Your task to perform on an android device: refresh tabs in the chrome app Image 0: 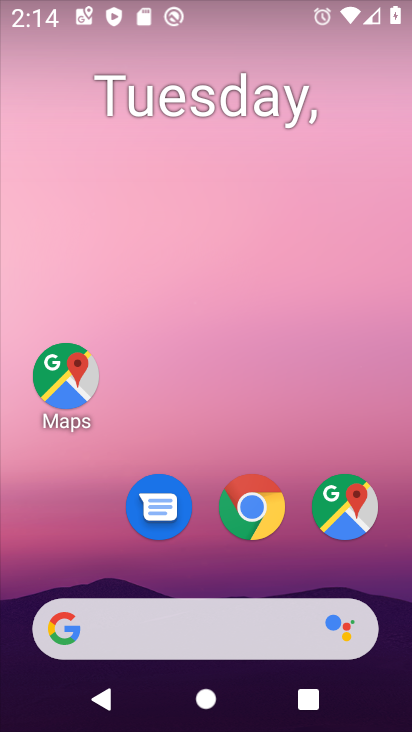
Step 0: click (242, 505)
Your task to perform on an android device: refresh tabs in the chrome app Image 1: 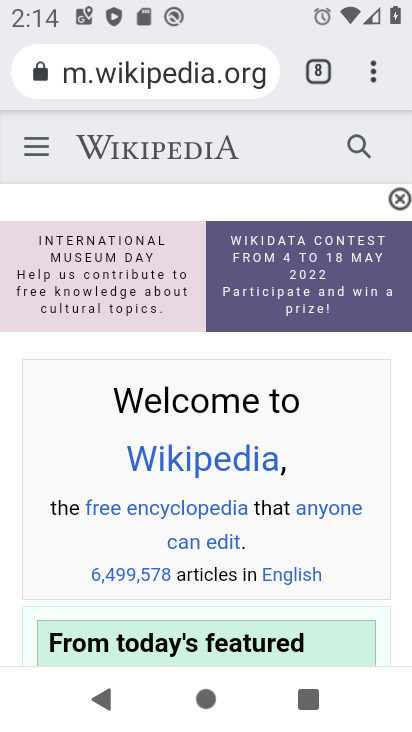
Step 1: click (364, 72)
Your task to perform on an android device: refresh tabs in the chrome app Image 2: 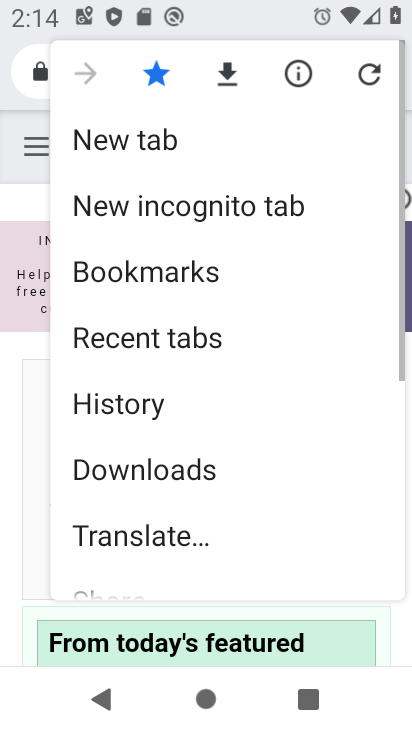
Step 2: click (369, 67)
Your task to perform on an android device: refresh tabs in the chrome app Image 3: 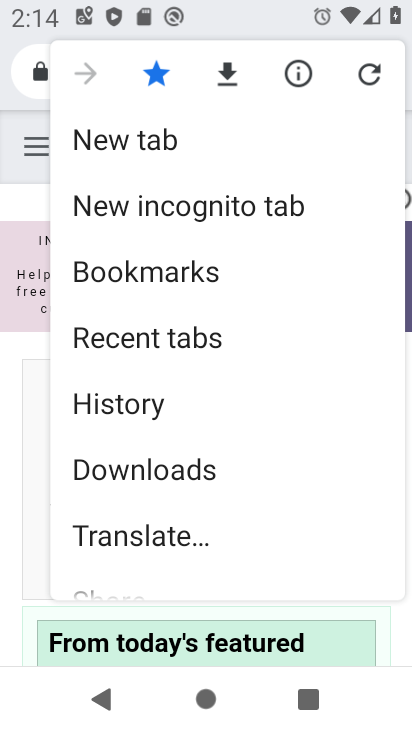
Step 3: task complete